Your task to perform on an android device: find which apps use the phone's location Image 0: 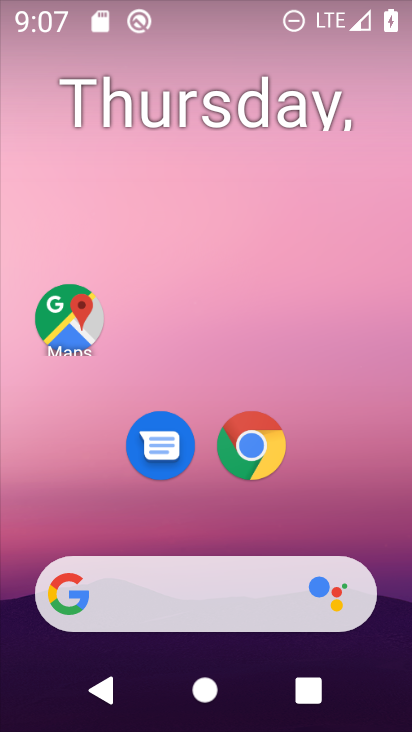
Step 0: drag from (378, 643) to (318, 110)
Your task to perform on an android device: find which apps use the phone's location Image 1: 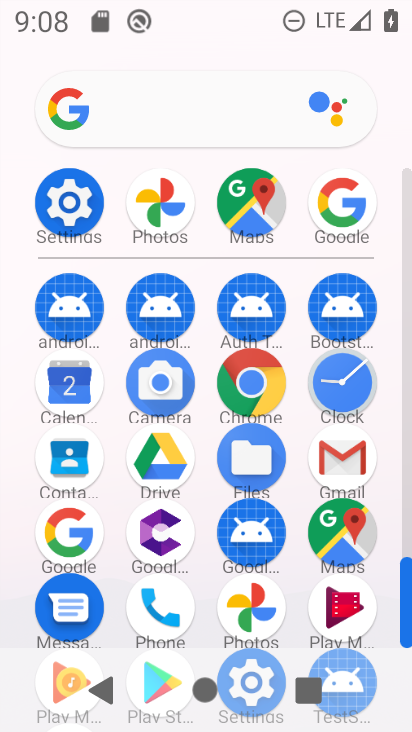
Step 1: click (58, 212)
Your task to perform on an android device: find which apps use the phone's location Image 2: 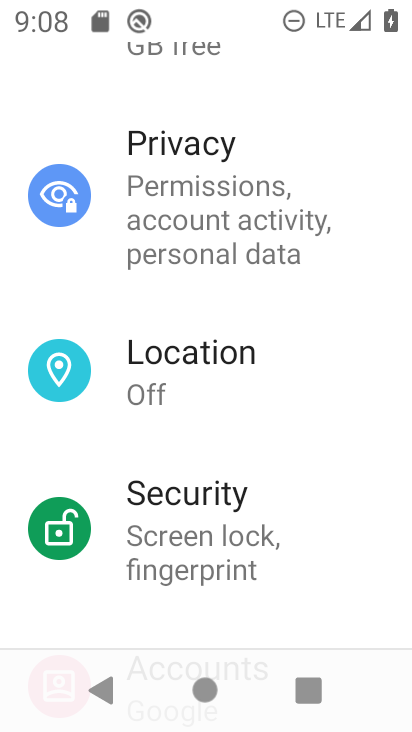
Step 2: click (231, 404)
Your task to perform on an android device: find which apps use the phone's location Image 3: 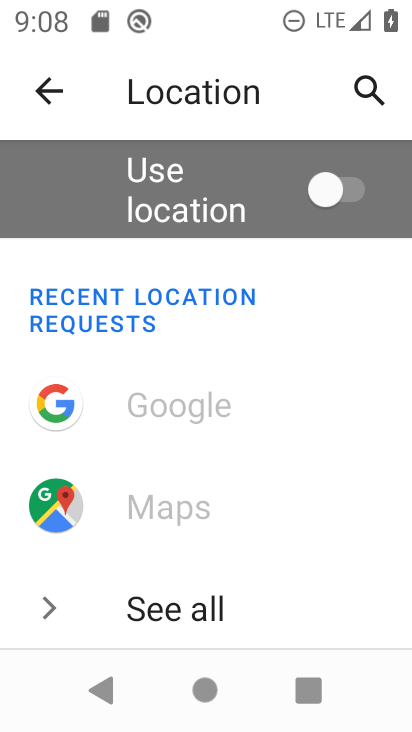
Step 3: drag from (142, 607) to (191, 145)
Your task to perform on an android device: find which apps use the phone's location Image 4: 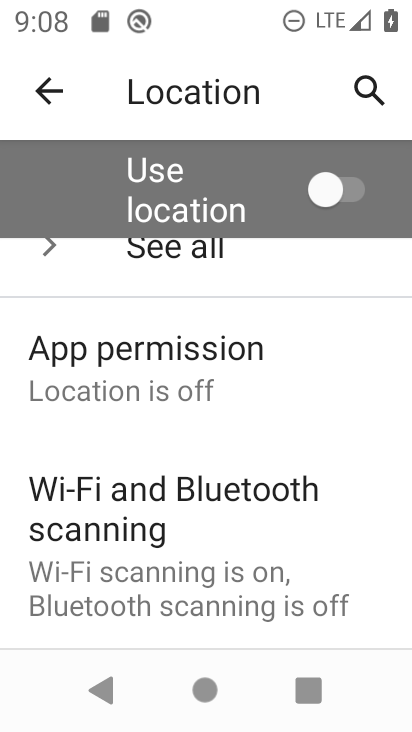
Step 4: click (209, 376)
Your task to perform on an android device: find which apps use the phone's location Image 5: 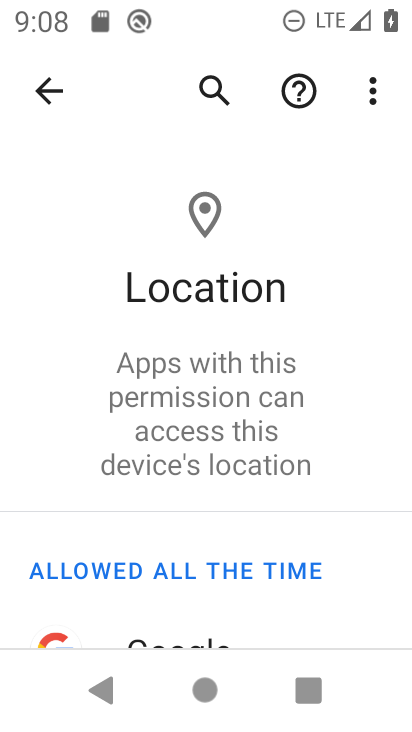
Step 5: drag from (224, 610) to (217, 51)
Your task to perform on an android device: find which apps use the phone's location Image 6: 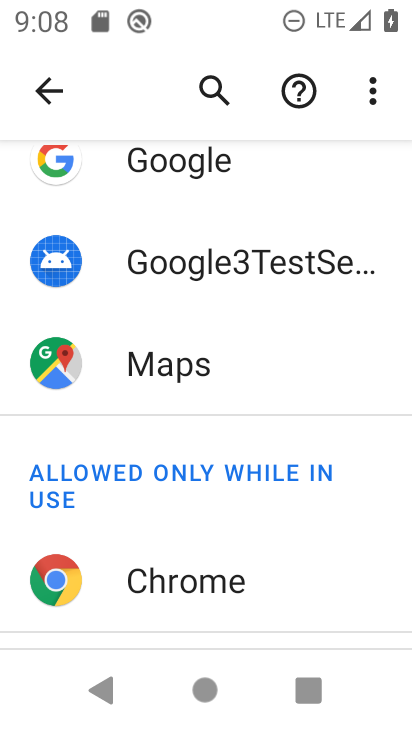
Step 6: click (242, 548)
Your task to perform on an android device: find which apps use the phone's location Image 7: 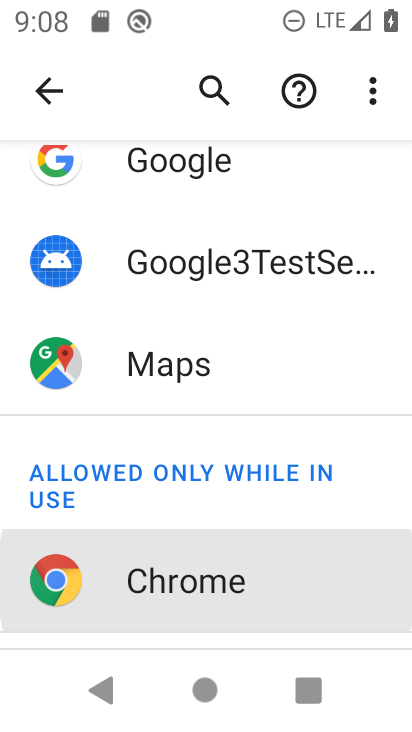
Step 7: drag from (270, 339) to (258, 247)
Your task to perform on an android device: find which apps use the phone's location Image 8: 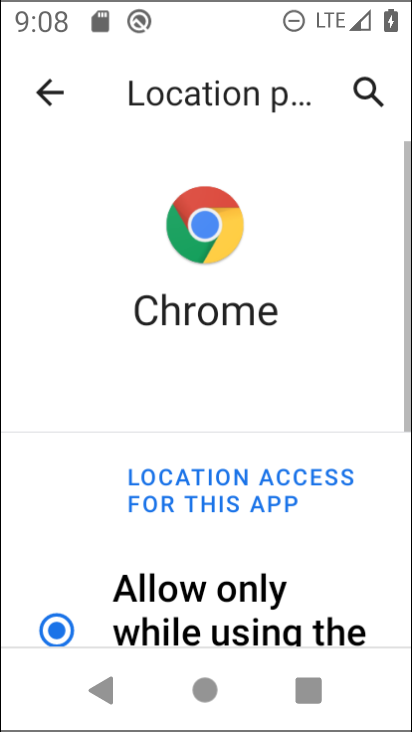
Step 8: click (248, 179)
Your task to perform on an android device: find which apps use the phone's location Image 9: 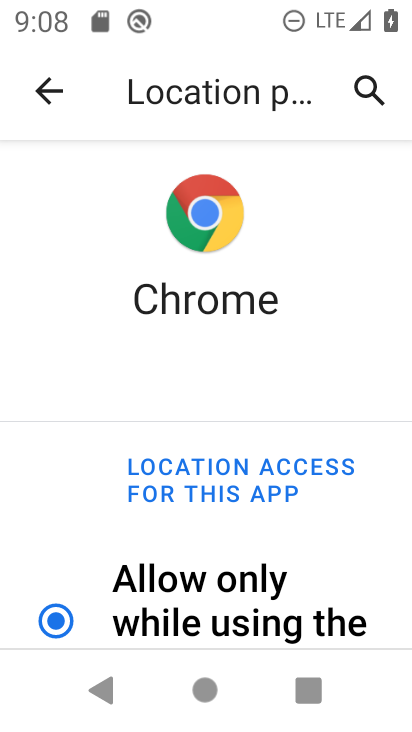
Step 9: press back button
Your task to perform on an android device: find which apps use the phone's location Image 10: 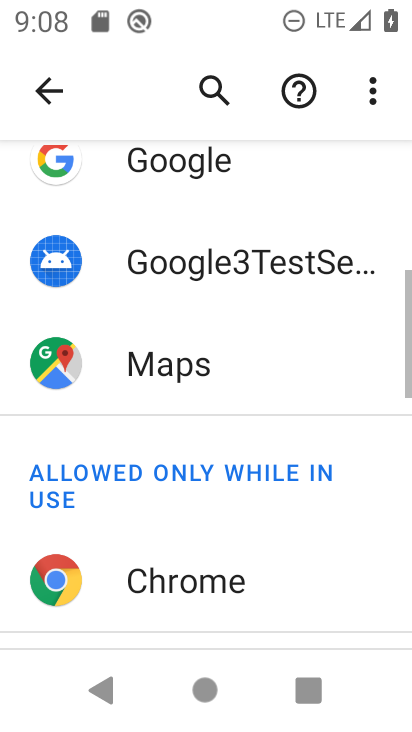
Step 10: drag from (216, 562) to (189, 145)
Your task to perform on an android device: find which apps use the phone's location Image 11: 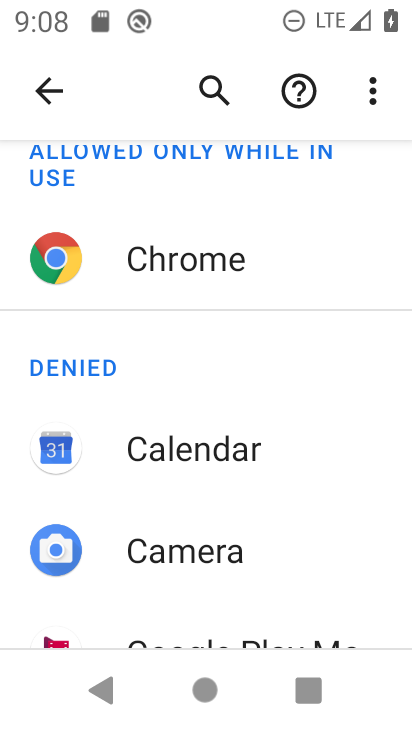
Step 11: drag from (194, 568) to (219, 146)
Your task to perform on an android device: find which apps use the phone's location Image 12: 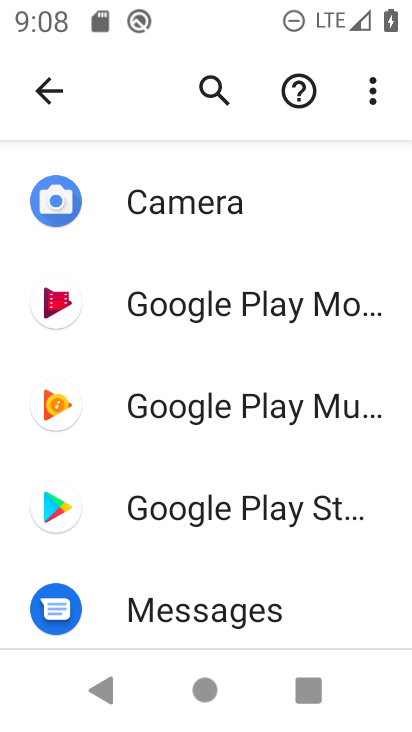
Step 12: drag from (211, 575) to (260, 146)
Your task to perform on an android device: find which apps use the phone's location Image 13: 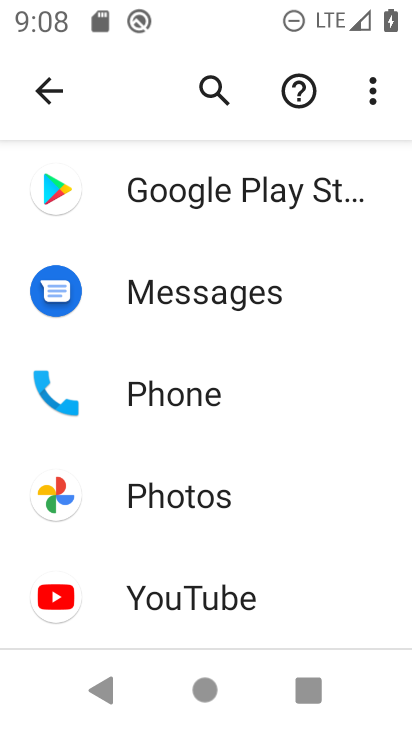
Step 13: click (179, 411)
Your task to perform on an android device: find which apps use the phone's location Image 14: 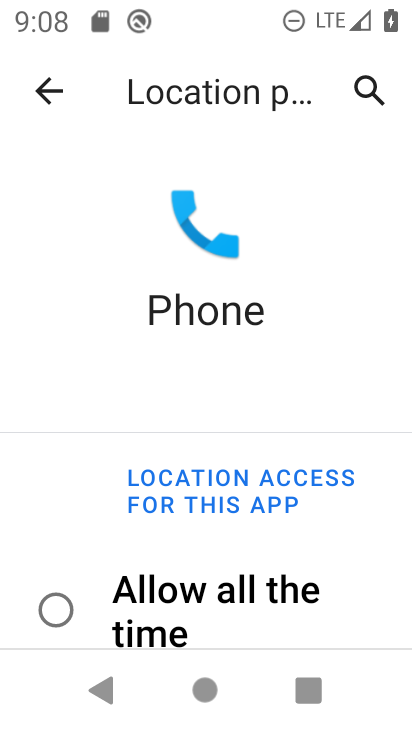
Step 14: click (69, 594)
Your task to perform on an android device: find which apps use the phone's location Image 15: 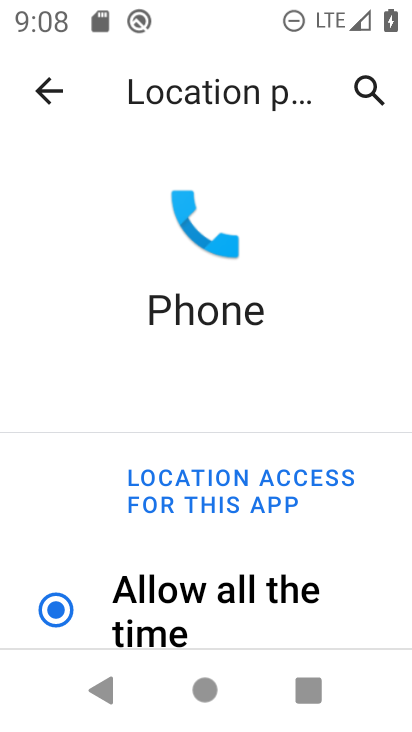
Step 15: task complete